Your task to perform on an android device: turn off airplane mode Image 0: 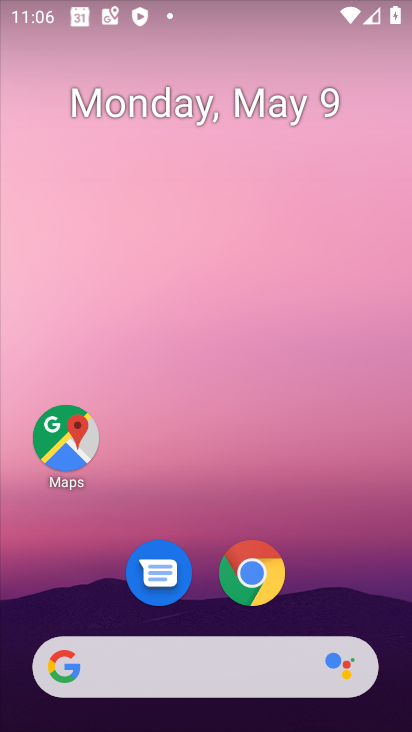
Step 0: drag from (197, 587) to (258, 3)
Your task to perform on an android device: turn off airplane mode Image 1: 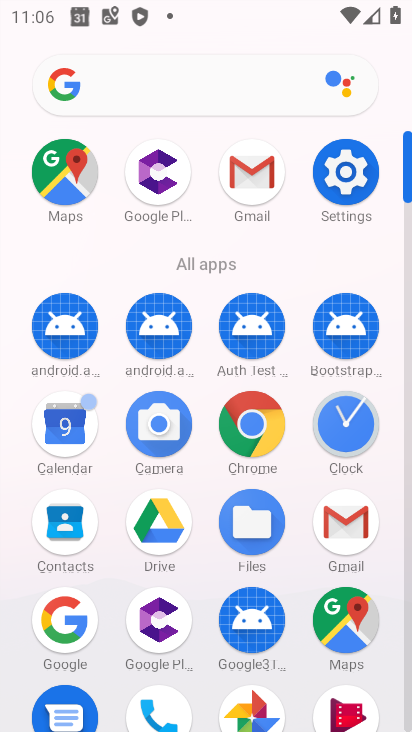
Step 1: click (357, 186)
Your task to perform on an android device: turn off airplane mode Image 2: 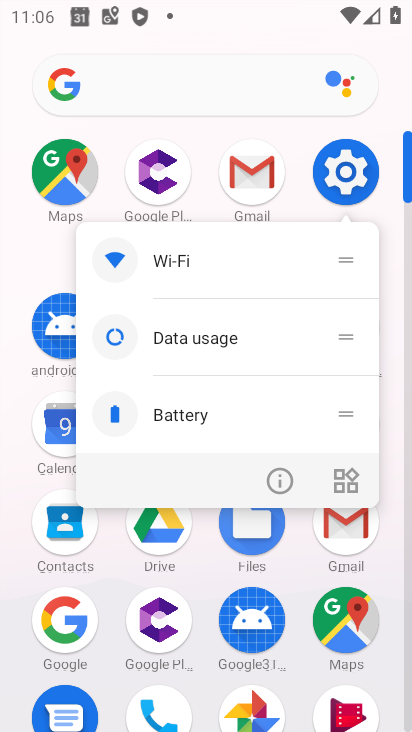
Step 2: click (283, 472)
Your task to perform on an android device: turn off airplane mode Image 3: 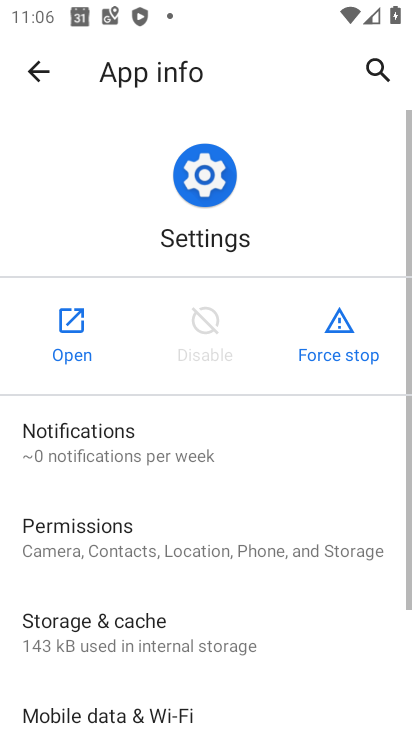
Step 3: click (48, 323)
Your task to perform on an android device: turn off airplane mode Image 4: 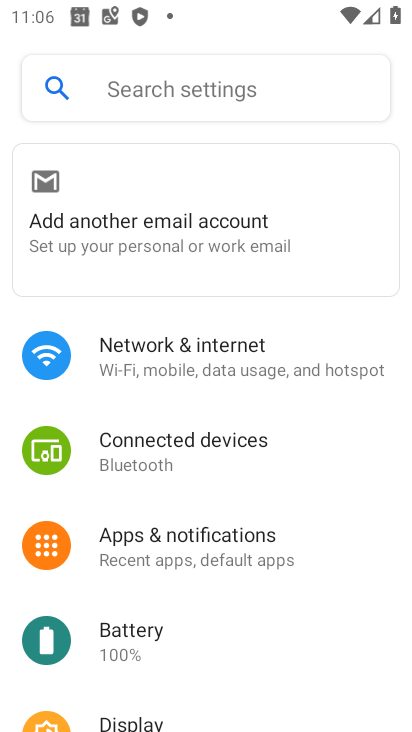
Step 4: click (187, 366)
Your task to perform on an android device: turn off airplane mode Image 5: 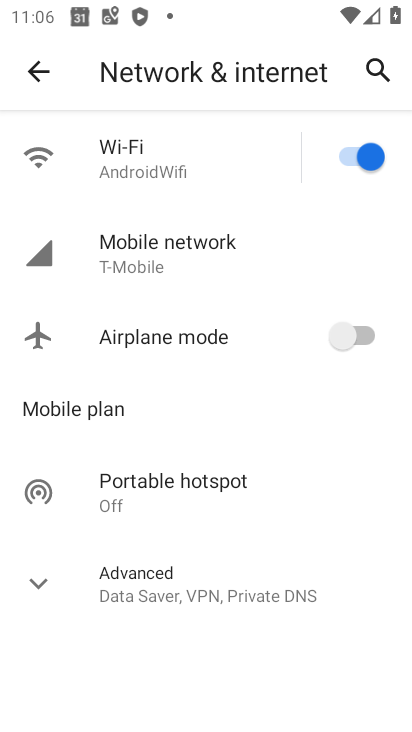
Step 5: task complete